Your task to perform on an android device: What's the news in Japan? Image 0: 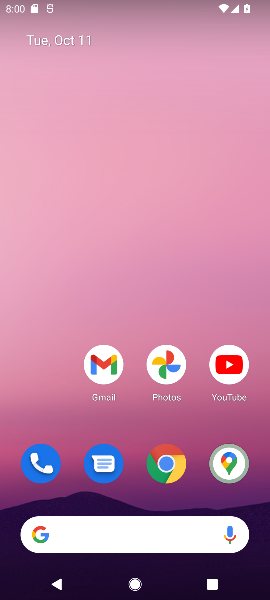
Step 0: drag from (98, 511) to (106, 290)
Your task to perform on an android device: What's the news in Japan? Image 1: 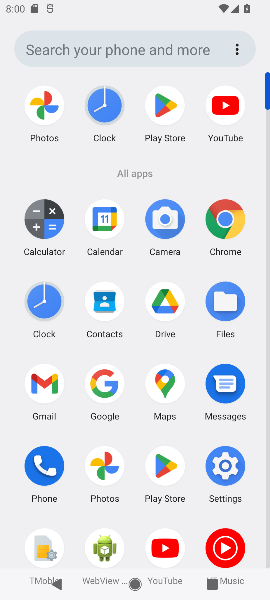
Step 1: click (106, 385)
Your task to perform on an android device: What's the news in Japan? Image 2: 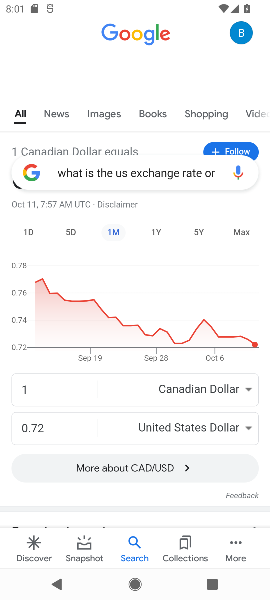
Step 2: click (84, 168)
Your task to perform on an android device: What's the news in Japan? Image 3: 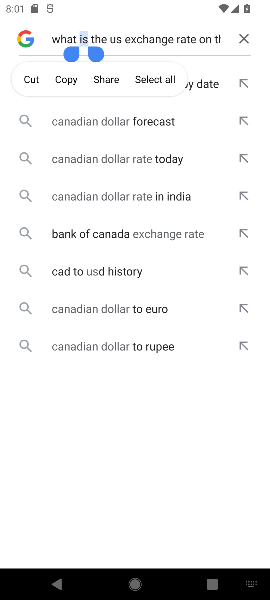
Step 3: click (246, 42)
Your task to perform on an android device: What's the news in Japan? Image 4: 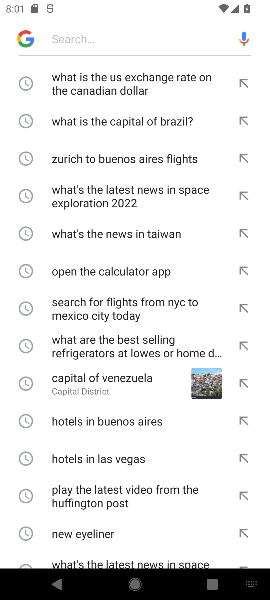
Step 4: click (125, 37)
Your task to perform on an android device: What's the news in Japan? Image 5: 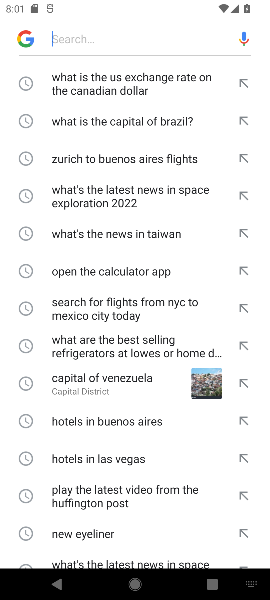
Step 5: type "What's the news in Japan? "
Your task to perform on an android device: What's the news in Japan? Image 6: 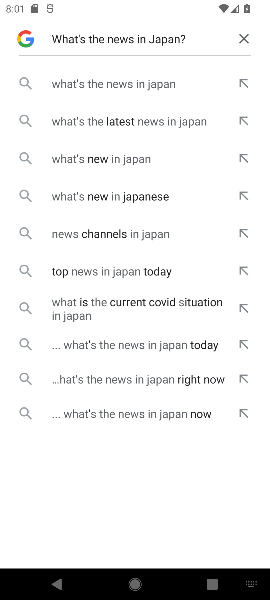
Step 6: click (104, 89)
Your task to perform on an android device: What's the news in Japan? Image 7: 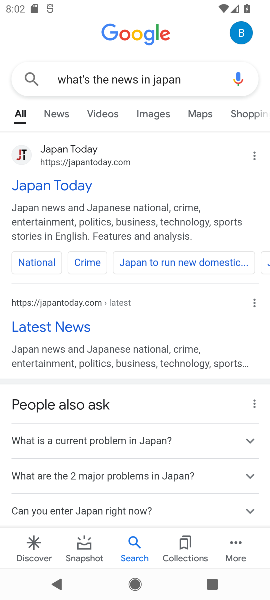
Step 7: click (75, 325)
Your task to perform on an android device: What's the news in Japan? Image 8: 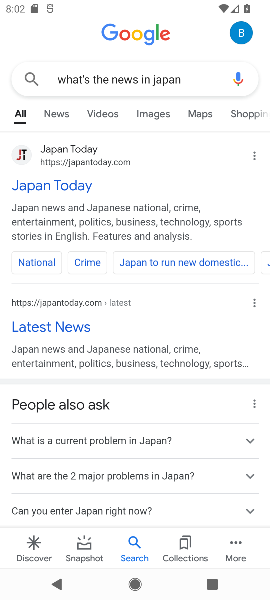
Step 8: click (77, 181)
Your task to perform on an android device: What's the news in Japan? Image 9: 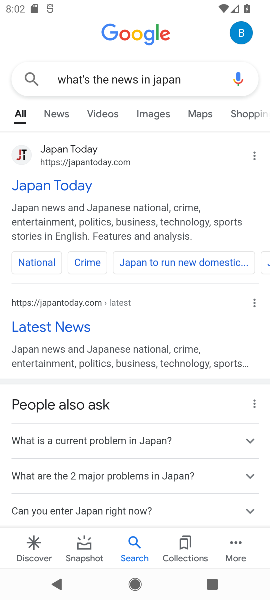
Step 9: click (68, 158)
Your task to perform on an android device: What's the news in Japan? Image 10: 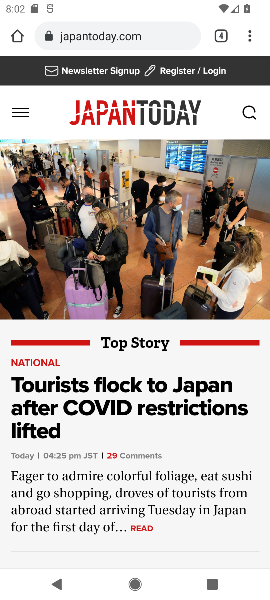
Step 10: task complete